Your task to perform on an android device: Open a new incognito window in Chrome Image 0: 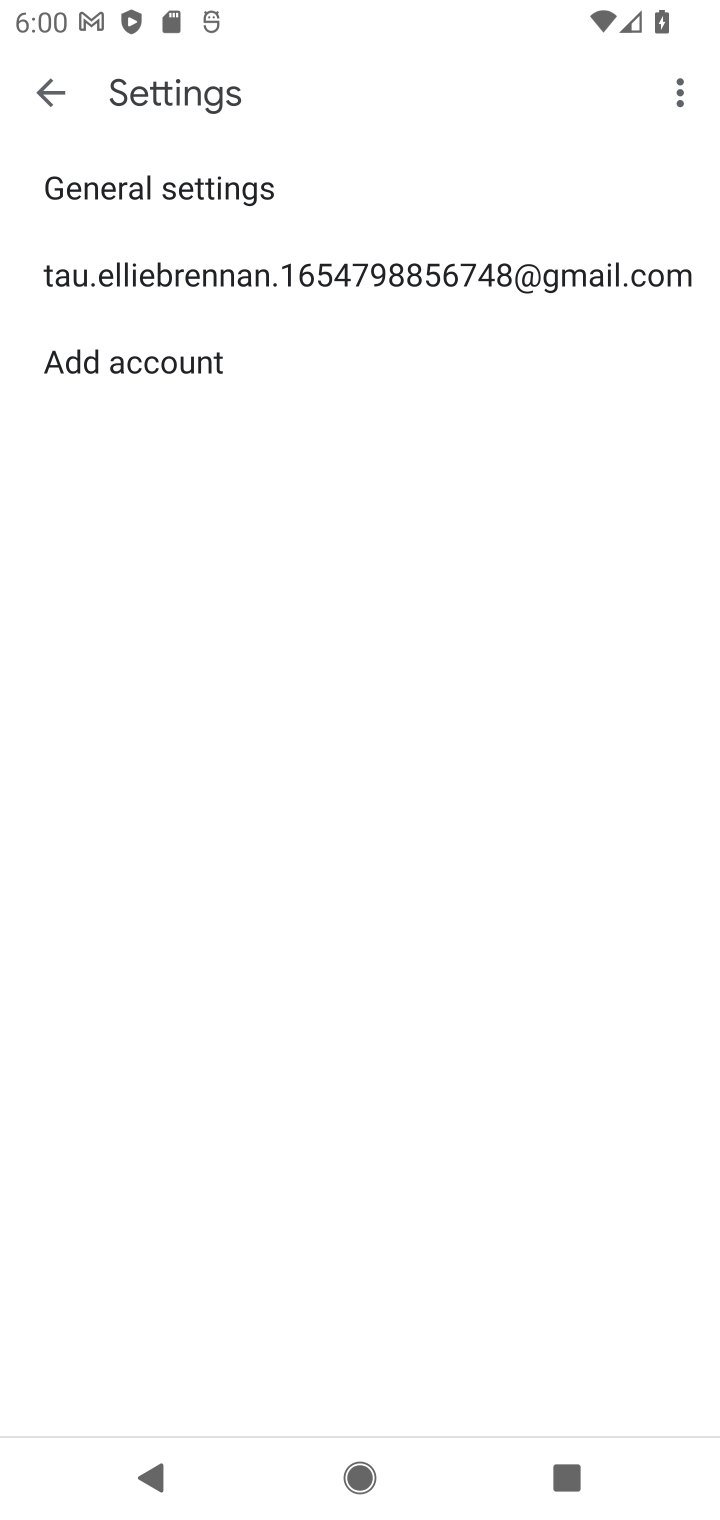
Step 0: press home button
Your task to perform on an android device: Open a new incognito window in Chrome Image 1: 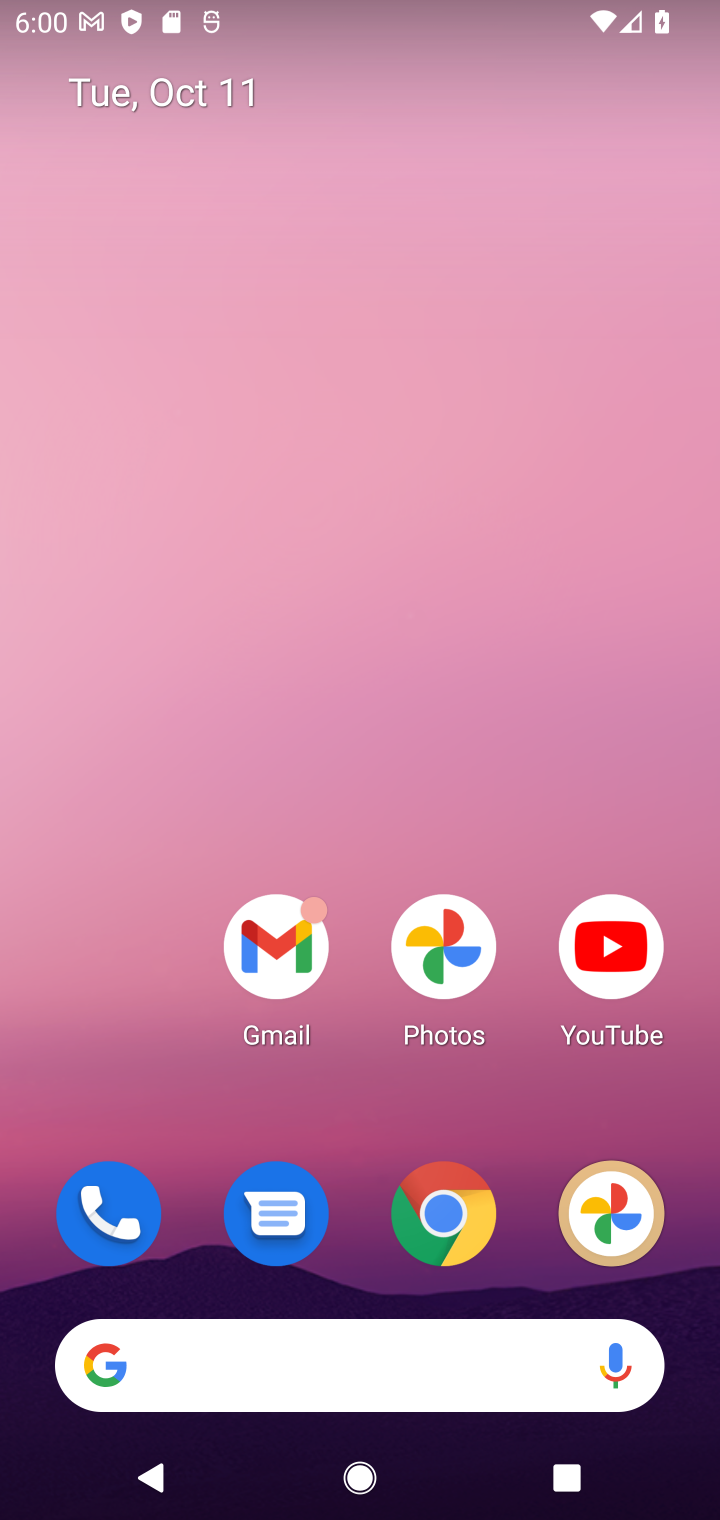
Step 1: drag from (403, 662) to (484, 104)
Your task to perform on an android device: Open a new incognito window in Chrome Image 2: 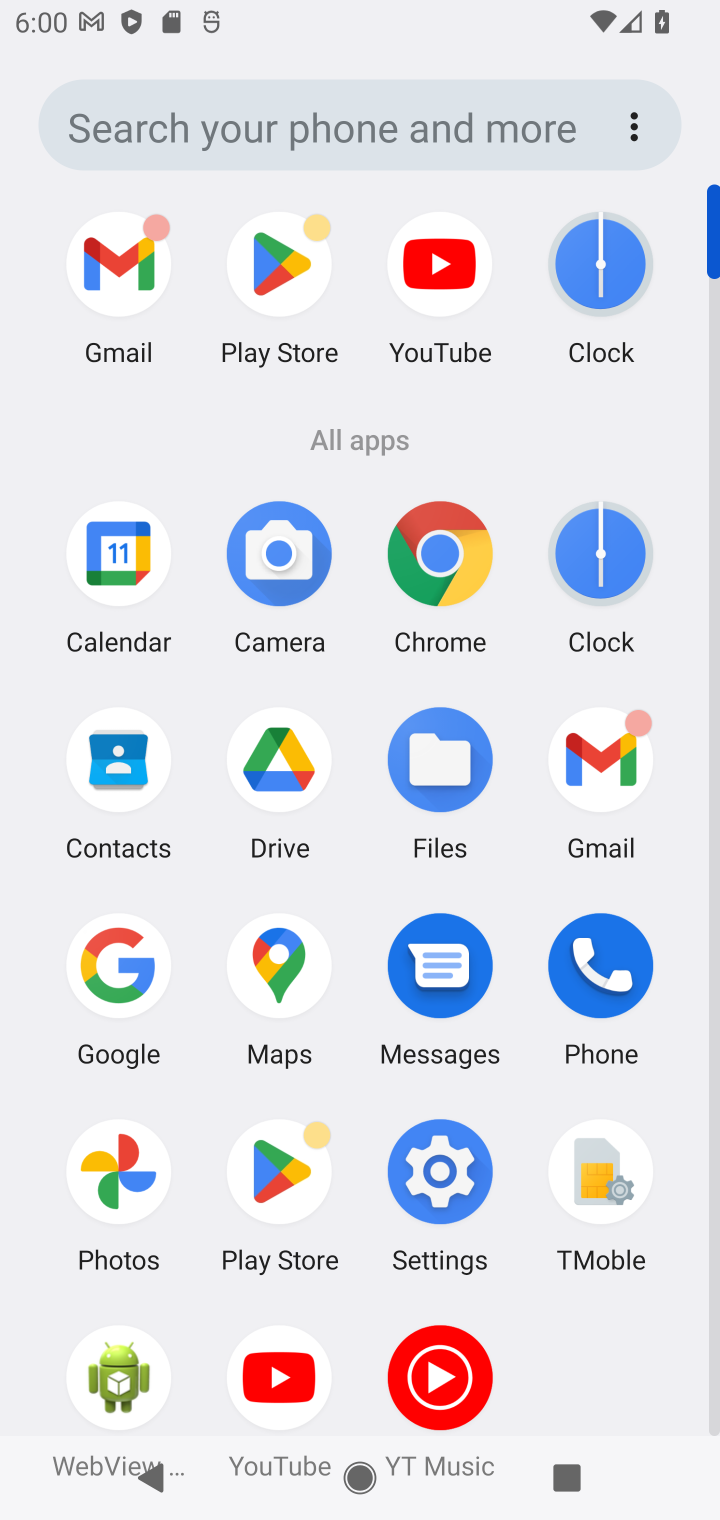
Step 2: click (407, 567)
Your task to perform on an android device: Open a new incognito window in Chrome Image 3: 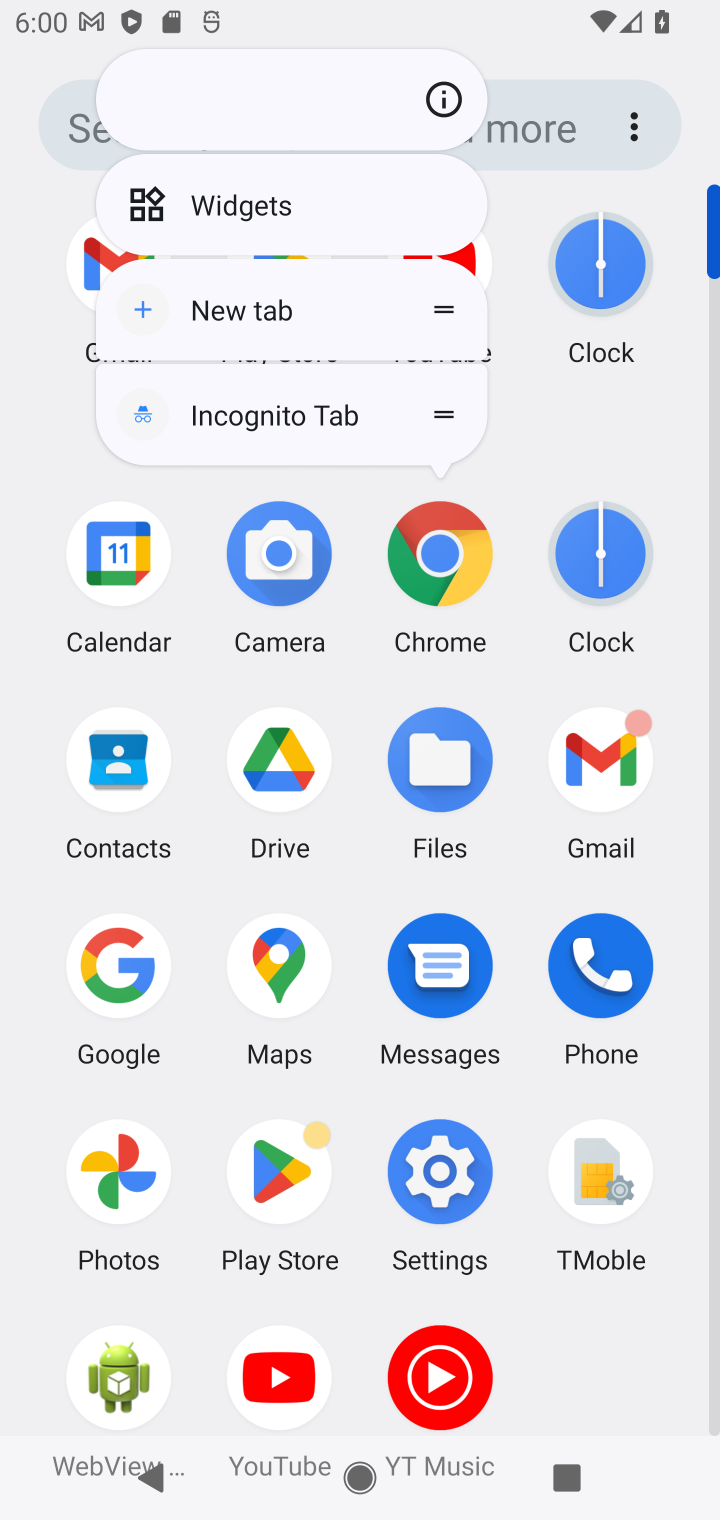
Step 3: click (266, 413)
Your task to perform on an android device: Open a new incognito window in Chrome Image 4: 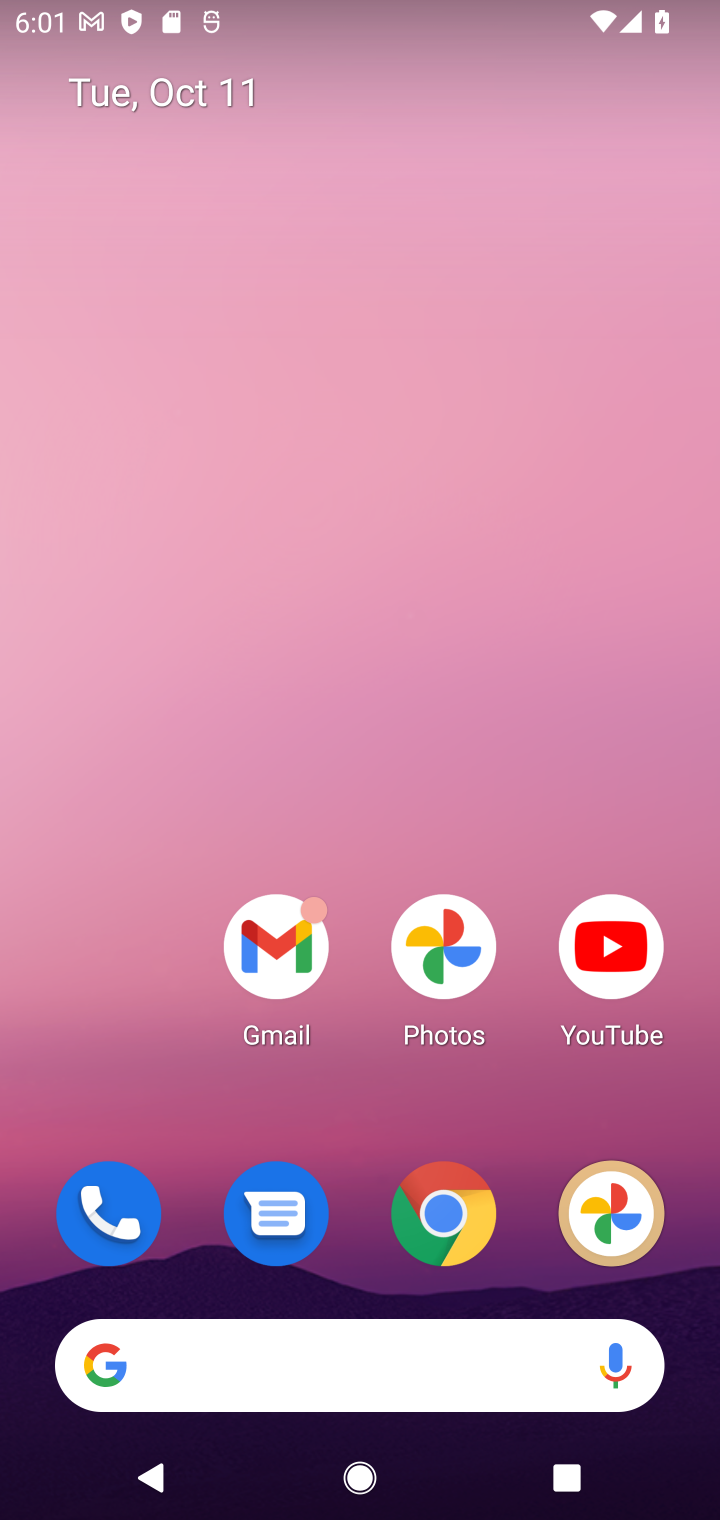
Step 4: drag from (263, 214) to (331, 93)
Your task to perform on an android device: Open a new incognito window in Chrome Image 5: 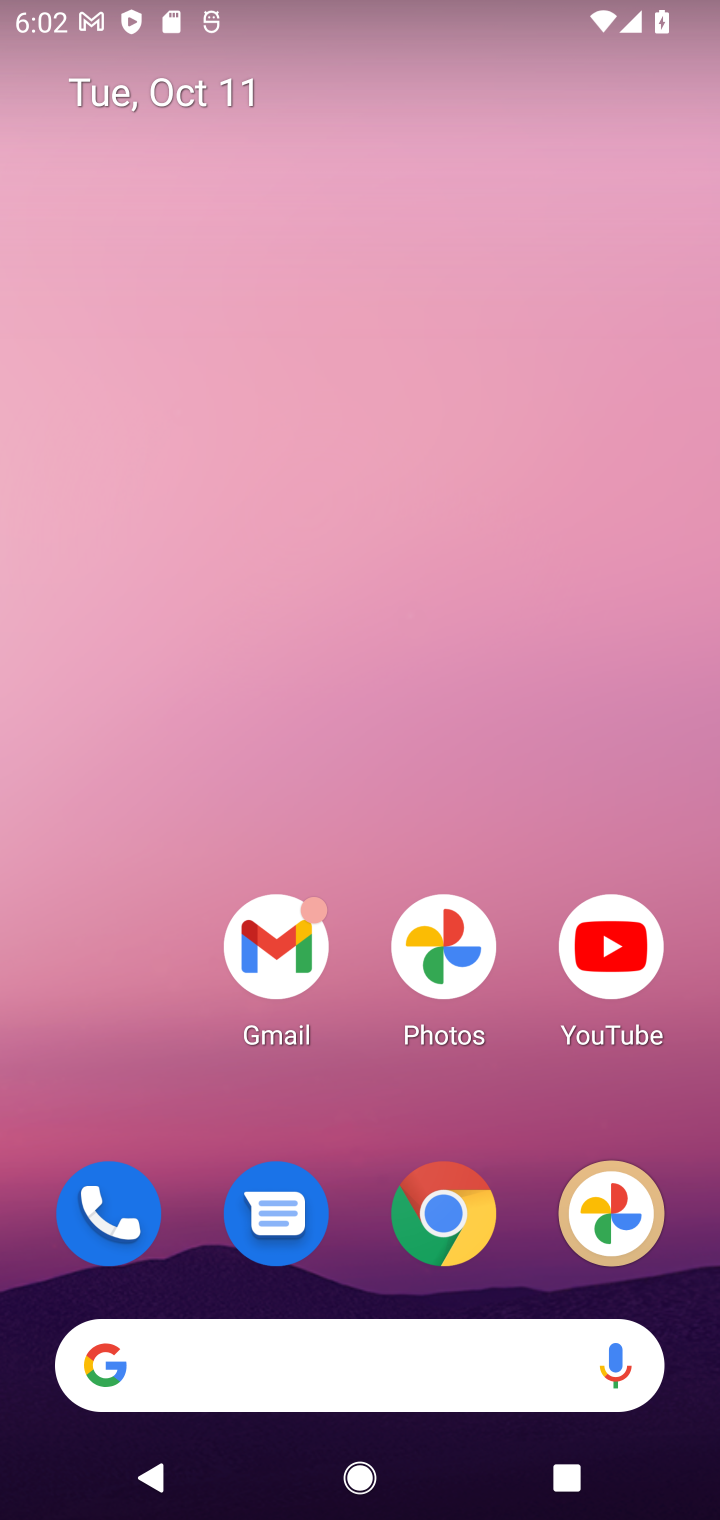
Step 5: click (347, 308)
Your task to perform on an android device: Open a new incognito window in Chrome Image 6: 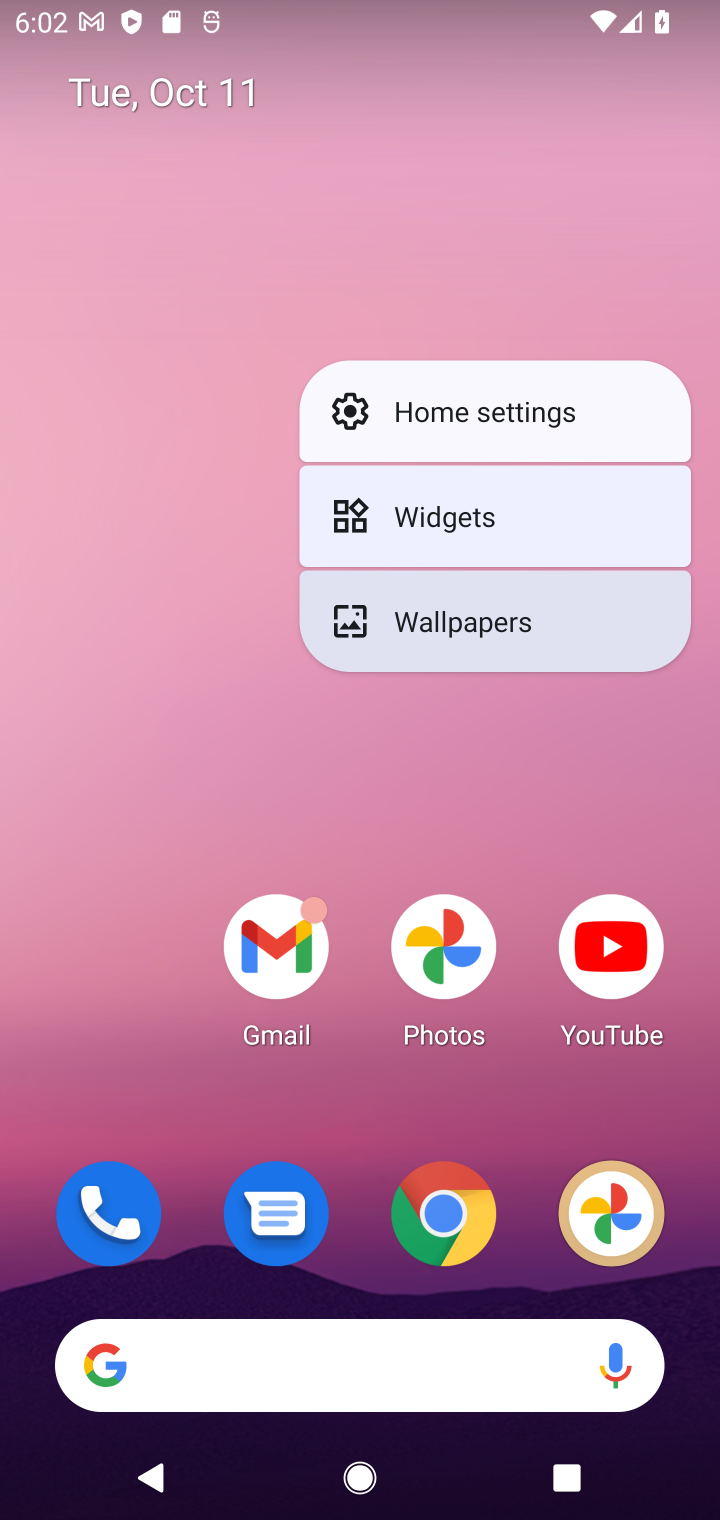
Step 6: task complete